Your task to perform on an android device: all mails in gmail Image 0: 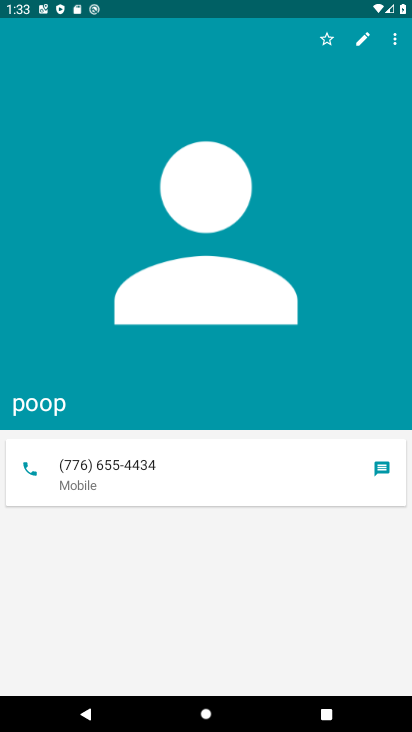
Step 0: press home button
Your task to perform on an android device: all mails in gmail Image 1: 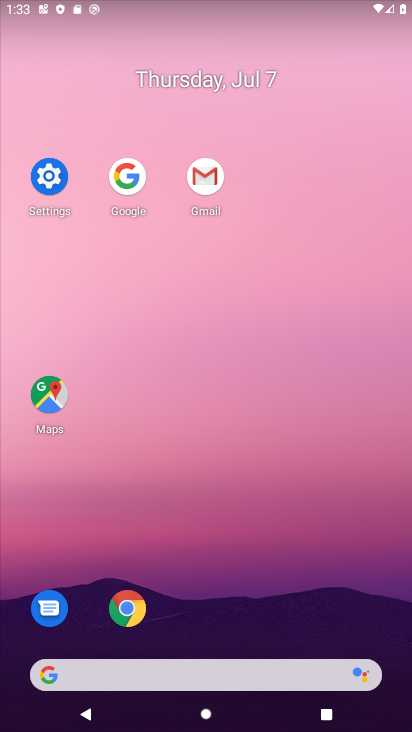
Step 1: click (202, 158)
Your task to perform on an android device: all mails in gmail Image 2: 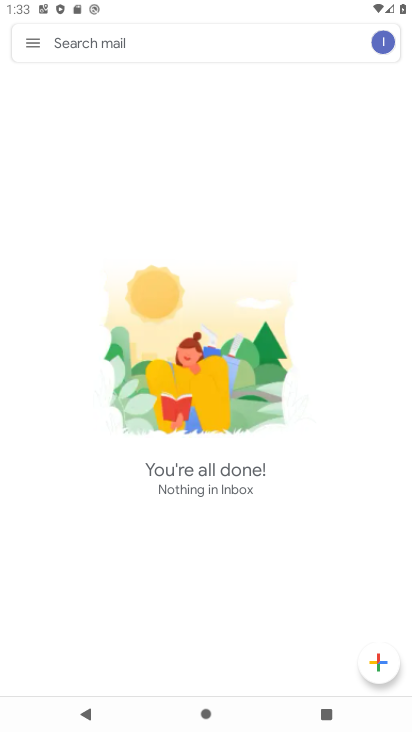
Step 2: click (36, 36)
Your task to perform on an android device: all mails in gmail Image 3: 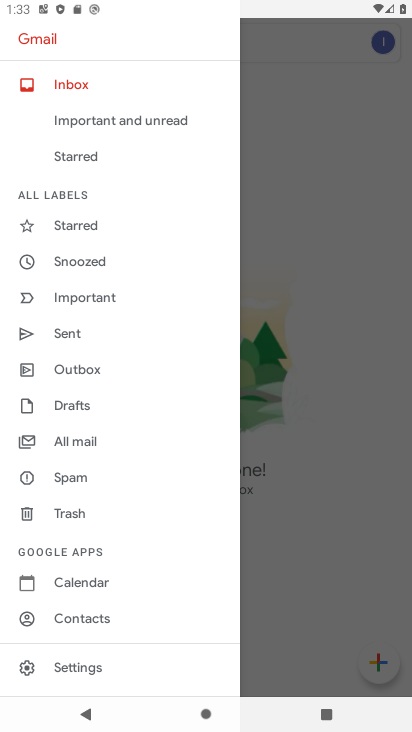
Step 3: click (101, 435)
Your task to perform on an android device: all mails in gmail Image 4: 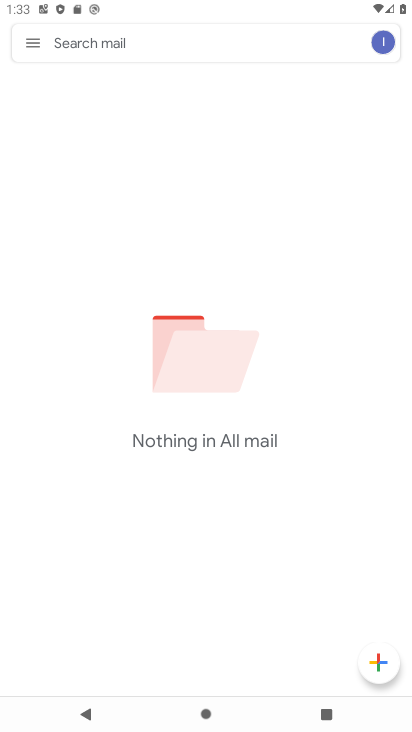
Step 4: task complete